Your task to perform on an android device: turn notification dots on Image 0: 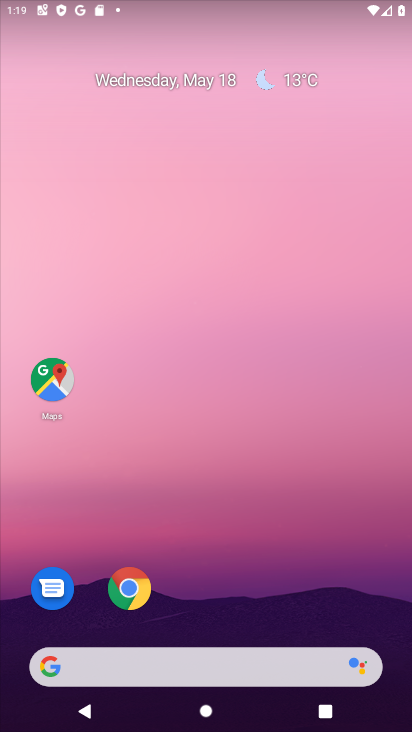
Step 0: drag from (219, 635) to (303, 216)
Your task to perform on an android device: turn notification dots on Image 1: 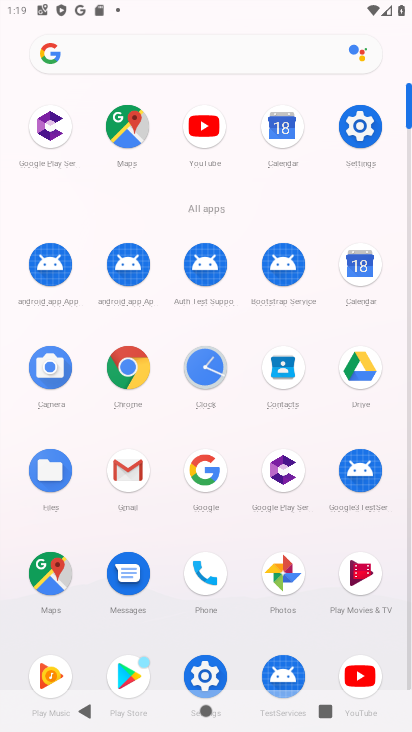
Step 1: click (368, 131)
Your task to perform on an android device: turn notification dots on Image 2: 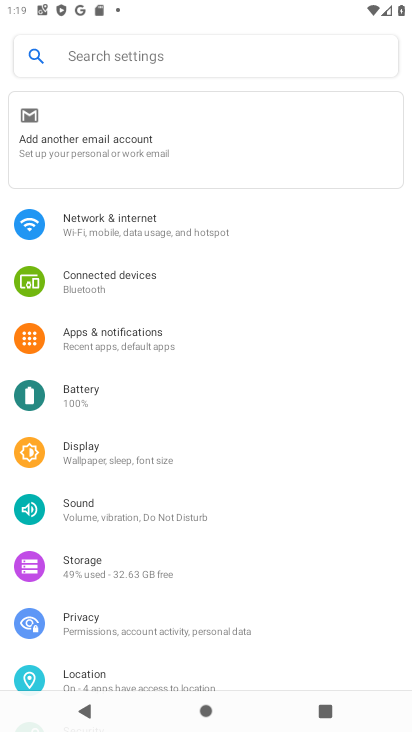
Step 2: drag from (218, 642) to (229, 249)
Your task to perform on an android device: turn notification dots on Image 3: 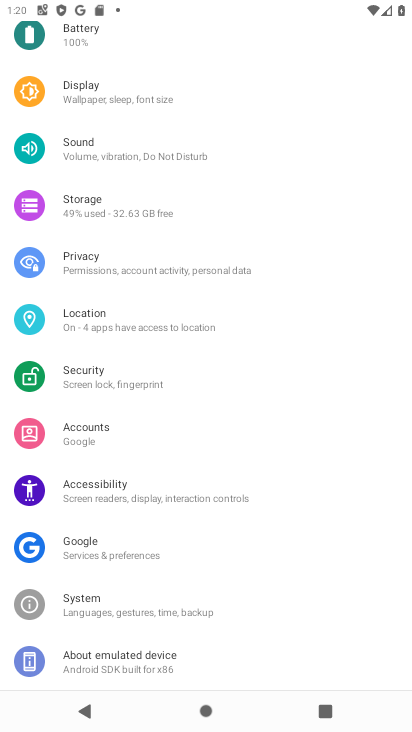
Step 3: drag from (134, 203) to (221, 589)
Your task to perform on an android device: turn notification dots on Image 4: 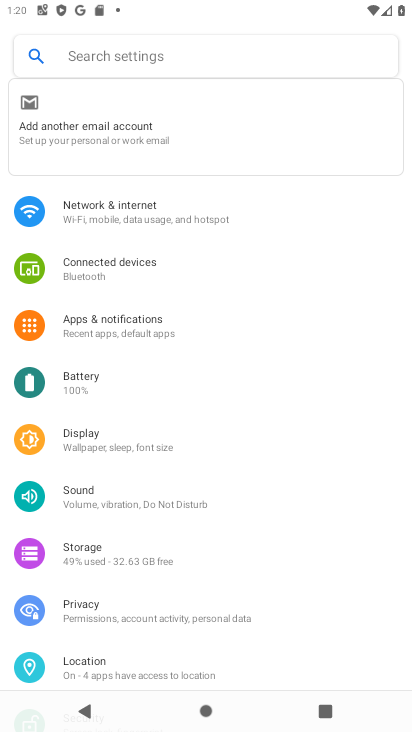
Step 4: click (131, 313)
Your task to perform on an android device: turn notification dots on Image 5: 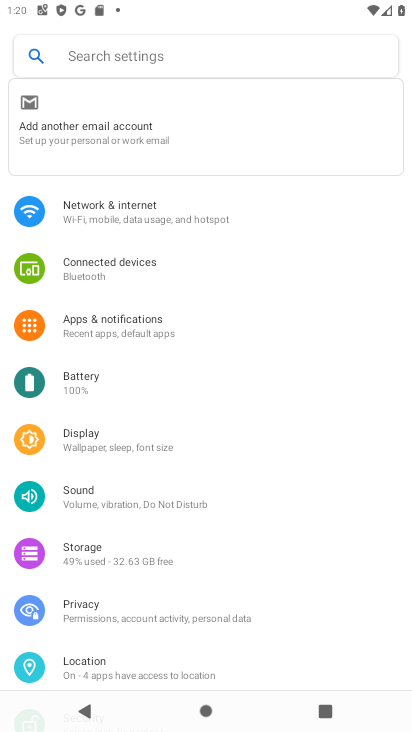
Step 5: click (131, 313)
Your task to perform on an android device: turn notification dots on Image 6: 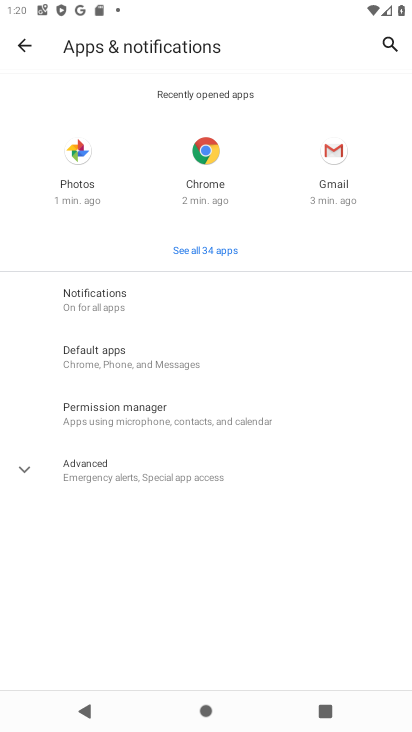
Step 6: click (185, 293)
Your task to perform on an android device: turn notification dots on Image 7: 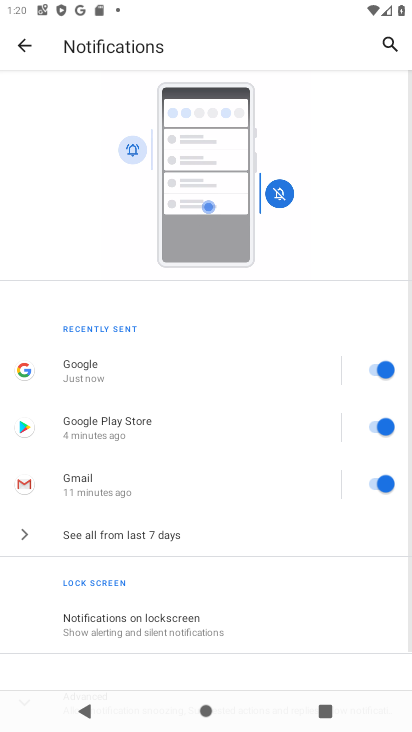
Step 7: drag from (291, 582) to (296, 357)
Your task to perform on an android device: turn notification dots on Image 8: 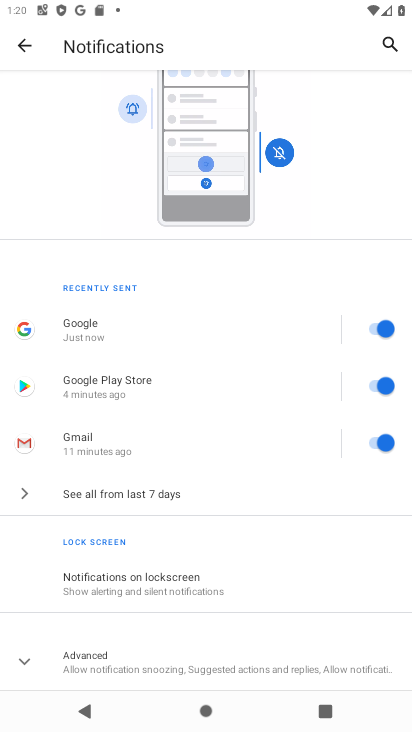
Step 8: click (100, 685)
Your task to perform on an android device: turn notification dots on Image 9: 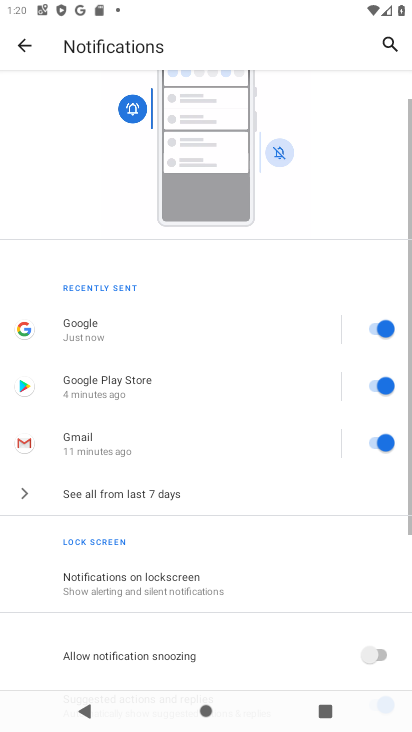
Step 9: task complete